Your task to perform on an android device: check android version Image 0: 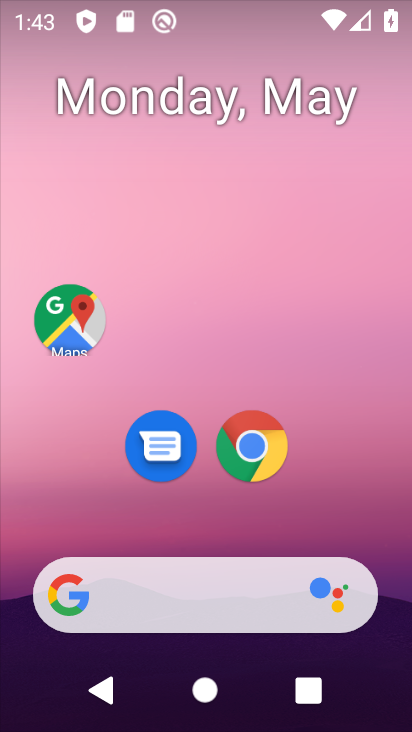
Step 0: drag from (356, 507) to (351, 189)
Your task to perform on an android device: check android version Image 1: 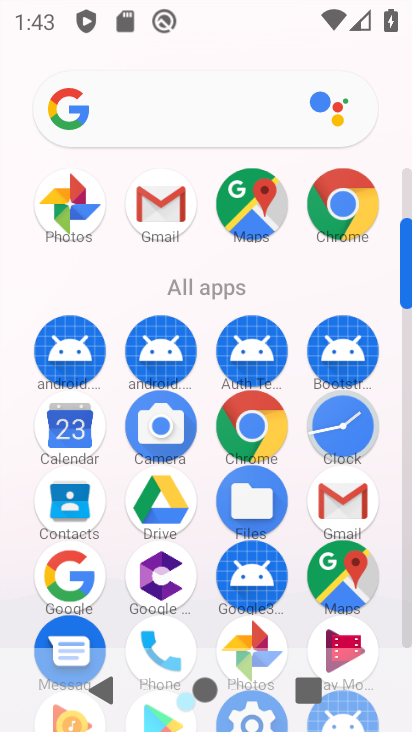
Step 1: drag from (280, 623) to (312, 301)
Your task to perform on an android device: check android version Image 2: 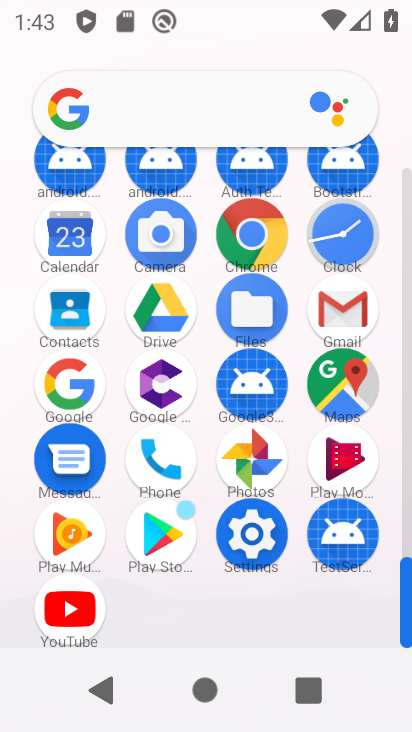
Step 2: click (248, 544)
Your task to perform on an android device: check android version Image 3: 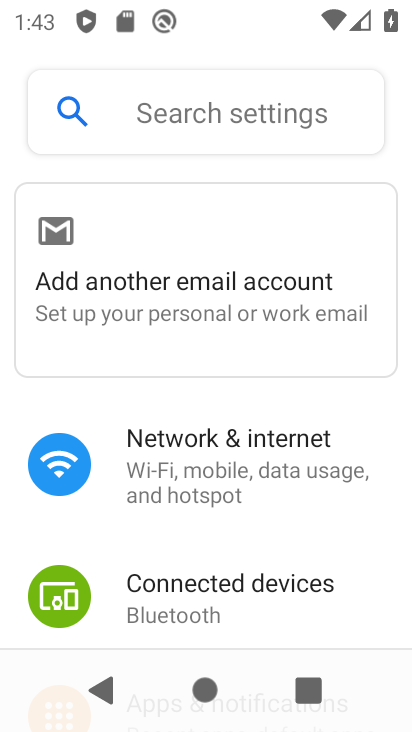
Step 3: drag from (228, 581) to (249, 292)
Your task to perform on an android device: check android version Image 4: 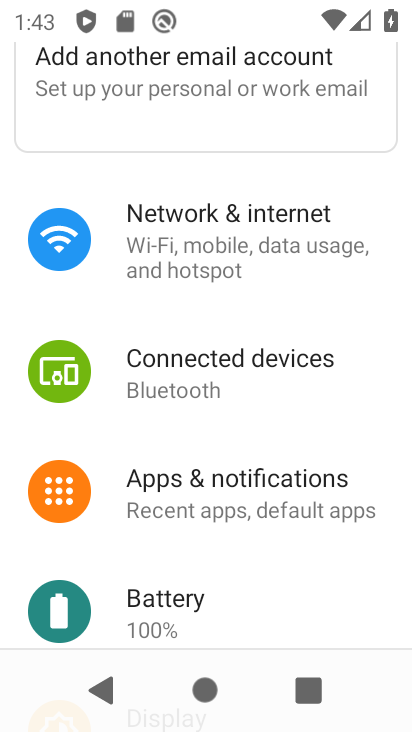
Step 4: drag from (250, 569) to (300, 253)
Your task to perform on an android device: check android version Image 5: 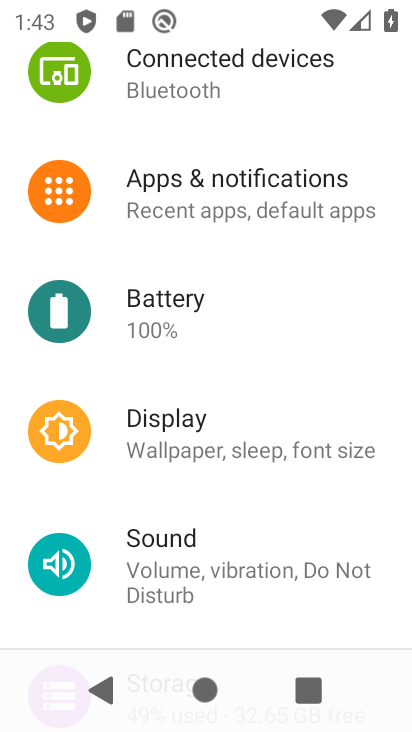
Step 5: drag from (244, 619) to (310, 155)
Your task to perform on an android device: check android version Image 6: 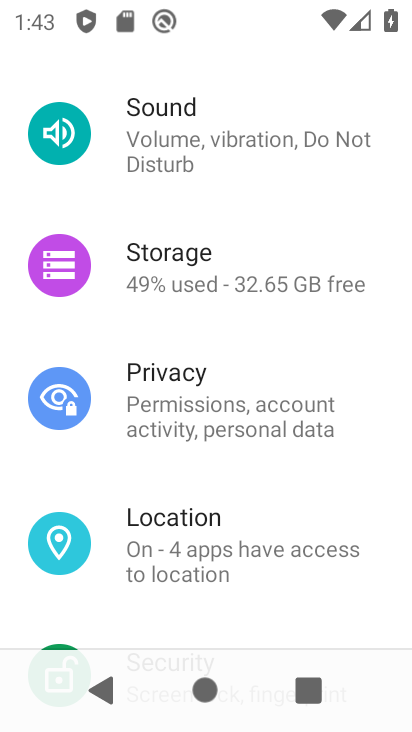
Step 6: drag from (269, 532) to (306, 215)
Your task to perform on an android device: check android version Image 7: 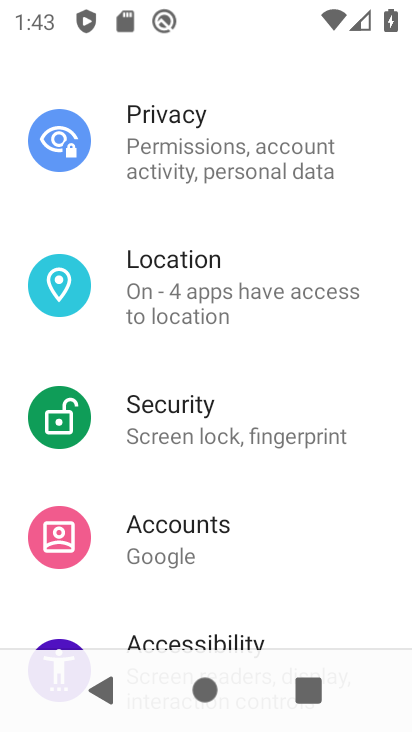
Step 7: drag from (308, 523) to (305, 157)
Your task to perform on an android device: check android version Image 8: 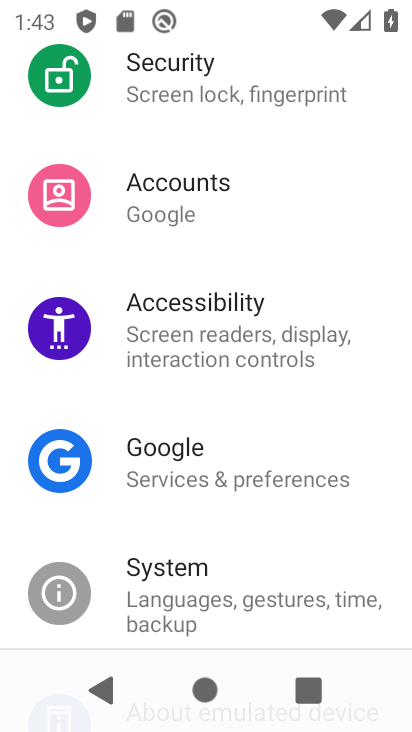
Step 8: drag from (309, 572) to (309, 264)
Your task to perform on an android device: check android version Image 9: 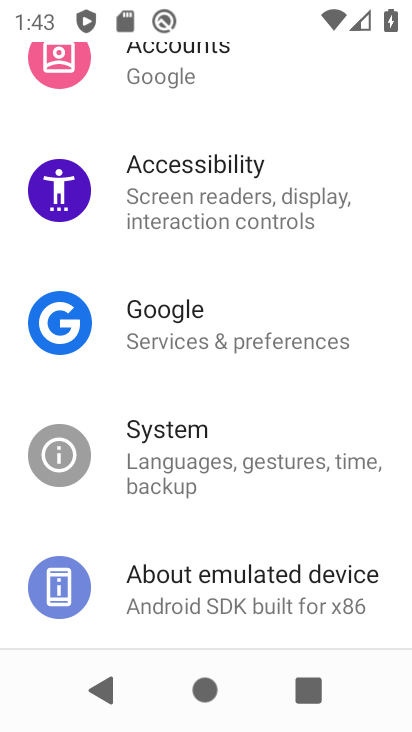
Step 9: click (268, 582)
Your task to perform on an android device: check android version Image 10: 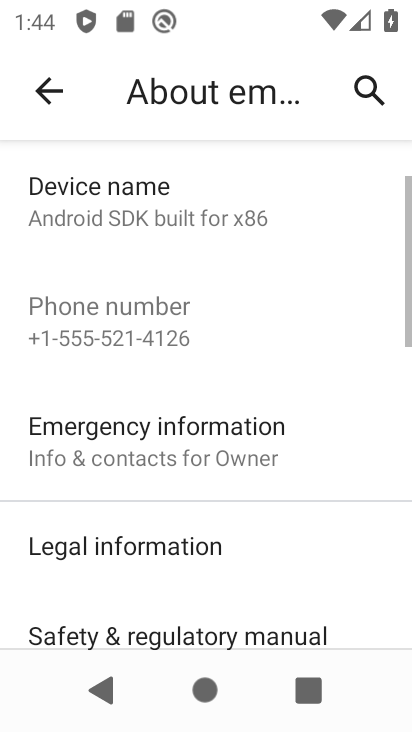
Step 10: task complete